Your task to perform on an android device: toggle improve location accuracy Image 0: 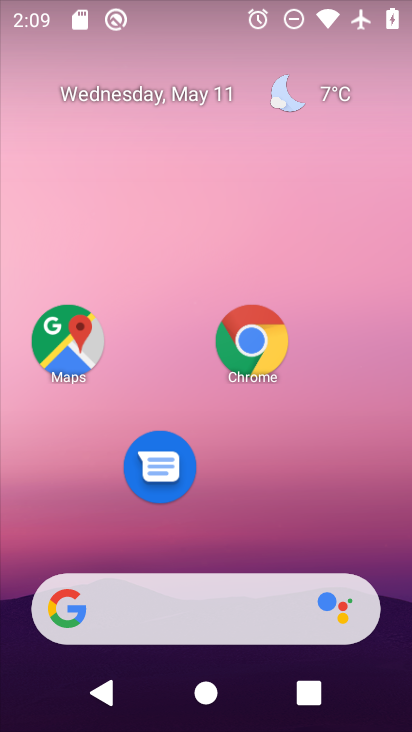
Step 0: drag from (144, 608) to (333, 54)
Your task to perform on an android device: toggle improve location accuracy Image 1: 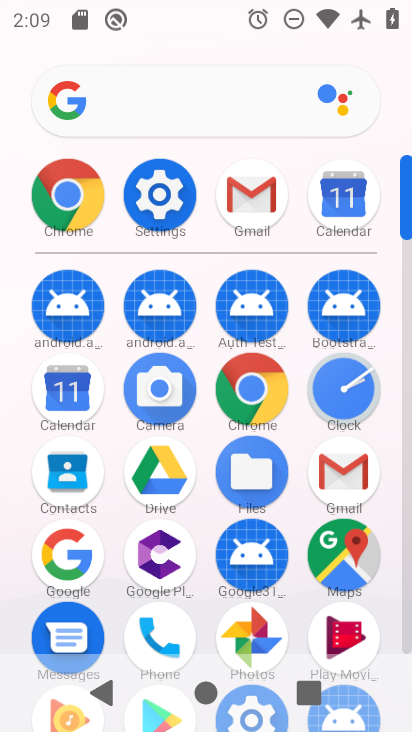
Step 1: click (165, 204)
Your task to perform on an android device: toggle improve location accuracy Image 2: 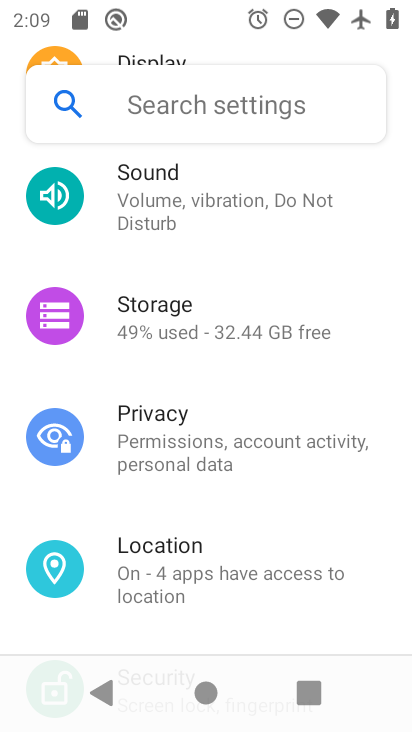
Step 2: click (157, 569)
Your task to perform on an android device: toggle improve location accuracy Image 3: 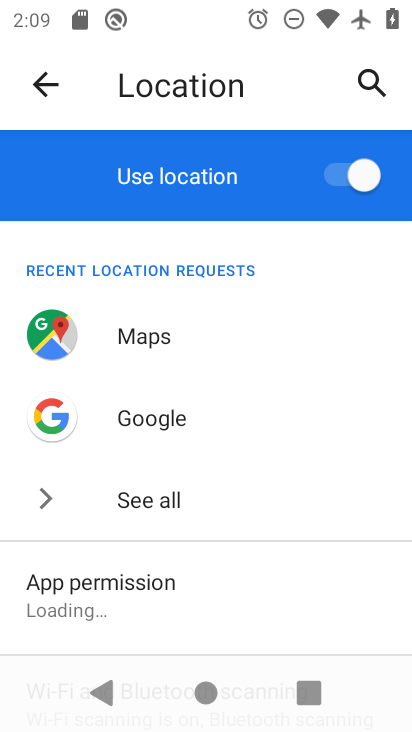
Step 3: drag from (213, 612) to (387, 154)
Your task to perform on an android device: toggle improve location accuracy Image 4: 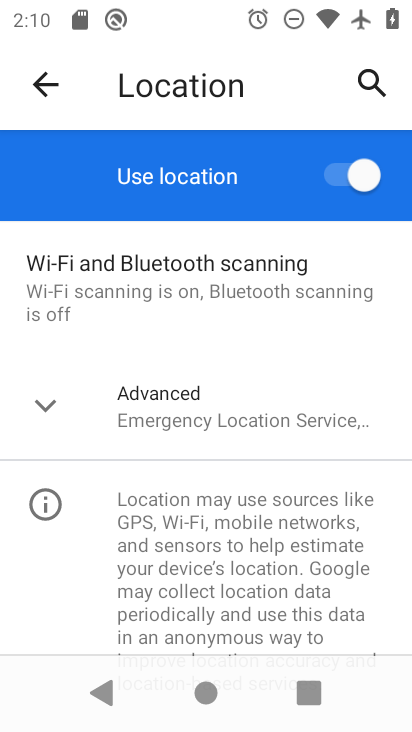
Step 4: click (164, 411)
Your task to perform on an android device: toggle improve location accuracy Image 5: 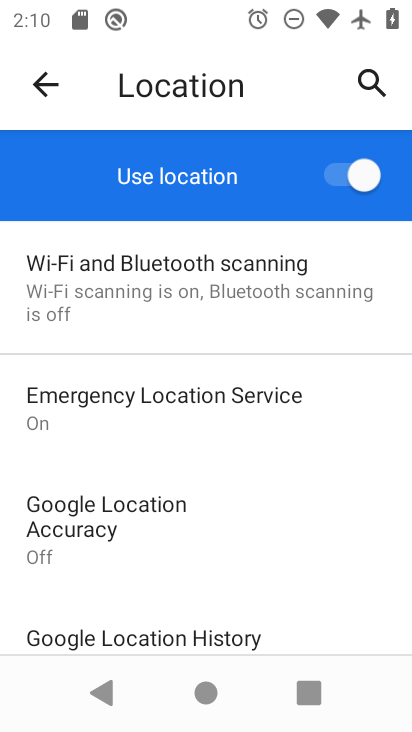
Step 5: click (119, 529)
Your task to perform on an android device: toggle improve location accuracy Image 6: 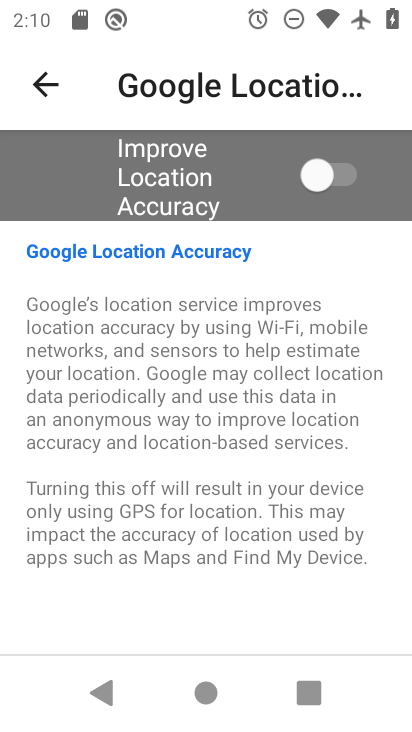
Step 6: click (335, 176)
Your task to perform on an android device: toggle improve location accuracy Image 7: 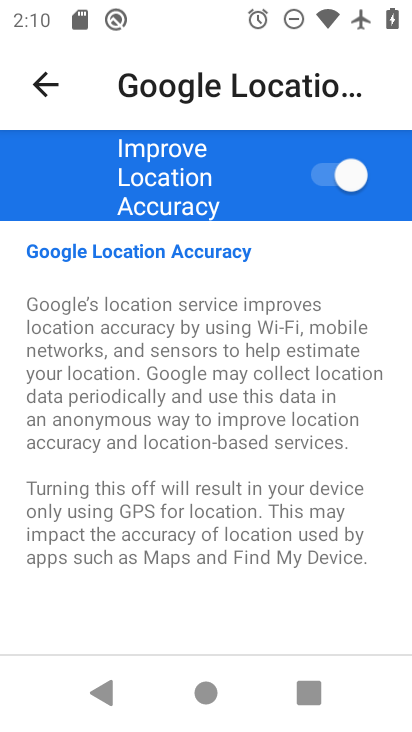
Step 7: task complete